Your task to perform on an android device: toggle priority inbox in the gmail app Image 0: 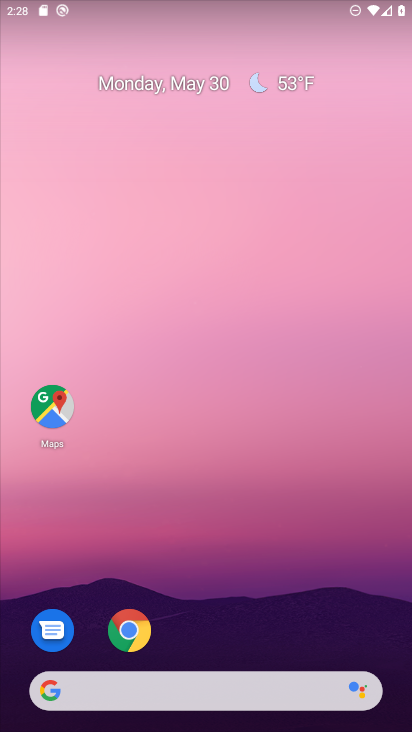
Step 0: drag from (200, 688) to (151, 47)
Your task to perform on an android device: toggle priority inbox in the gmail app Image 1: 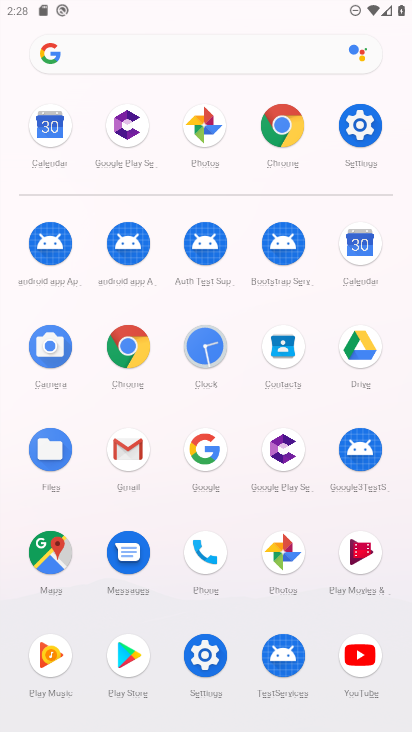
Step 1: click (137, 472)
Your task to perform on an android device: toggle priority inbox in the gmail app Image 2: 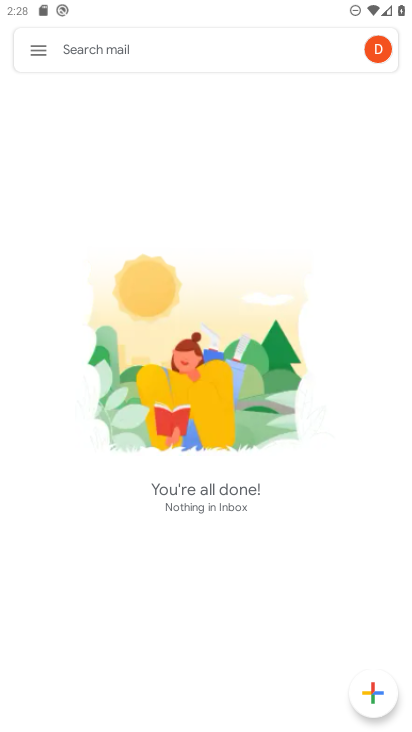
Step 2: click (36, 50)
Your task to perform on an android device: toggle priority inbox in the gmail app Image 3: 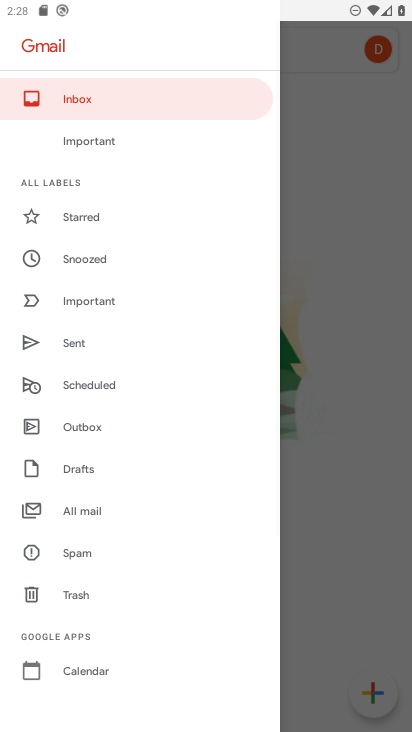
Step 3: drag from (84, 594) to (113, 86)
Your task to perform on an android device: toggle priority inbox in the gmail app Image 4: 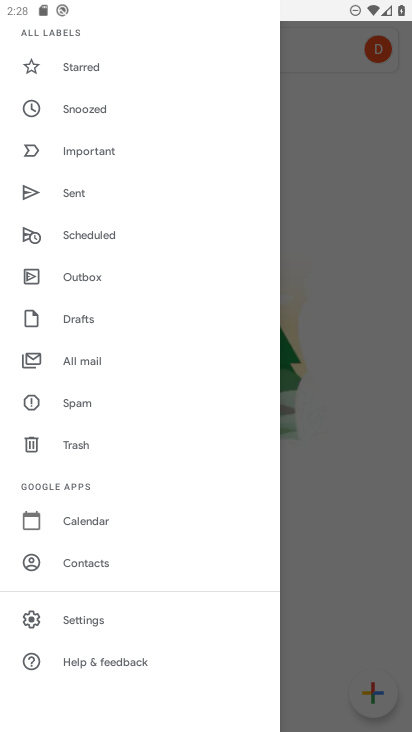
Step 4: click (69, 619)
Your task to perform on an android device: toggle priority inbox in the gmail app Image 5: 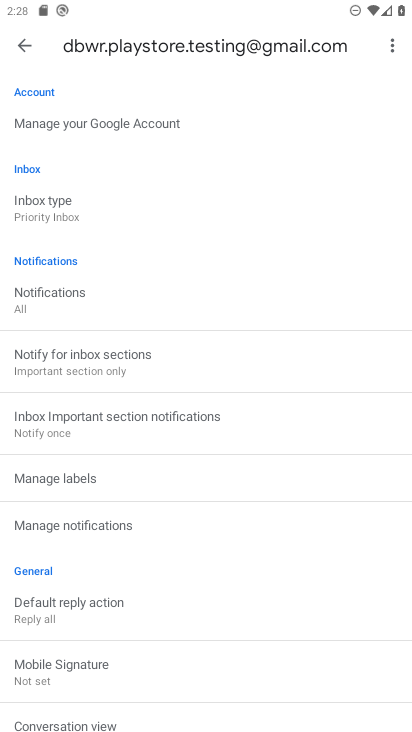
Step 5: click (63, 205)
Your task to perform on an android device: toggle priority inbox in the gmail app Image 6: 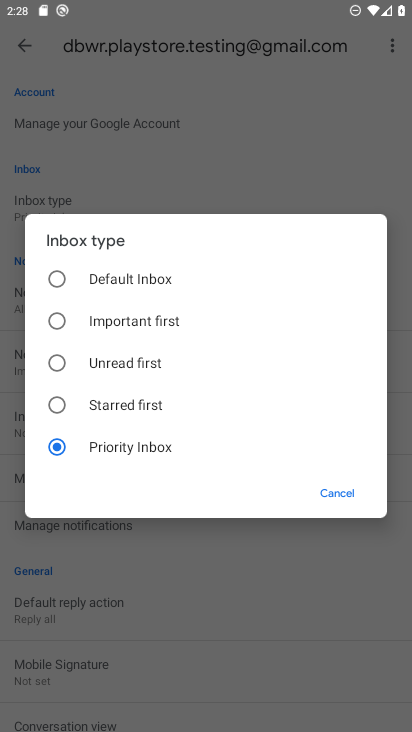
Step 6: click (94, 278)
Your task to perform on an android device: toggle priority inbox in the gmail app Image 7: 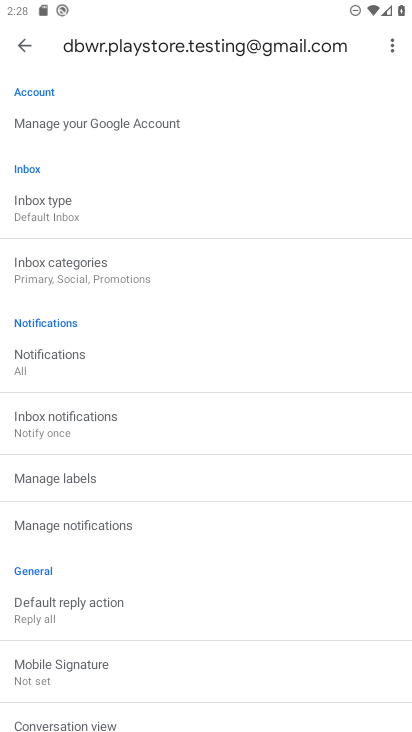
Step 7: task complete